Your task to perform on an android device: Open calendar and show me the first week of next month Image 0: 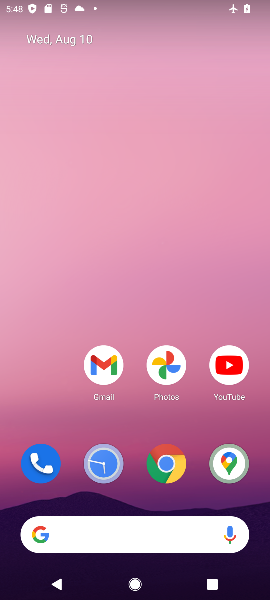
Step 0: drag from (141, 445) to (104, 150)
Your task to perform on an android device: Open calendar and show me the first week of next month Image 1: 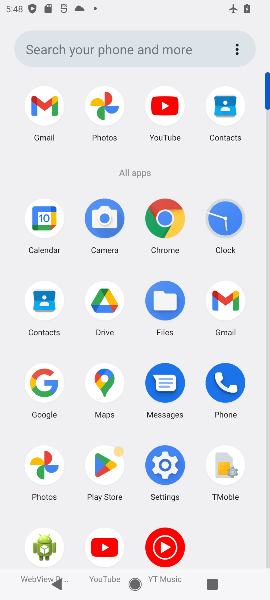
Step 1: click (46, 229)
Your task to perform on an android device: Open calendar and show me the first week of next month Image 2: 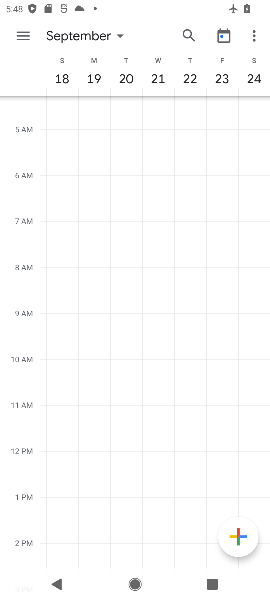
Step 2: click (119, 32)
Your task to perform on an android device: Open calendar and show me the first week of next month Image 3: 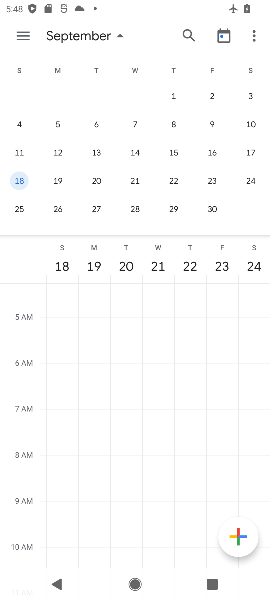
Step 3: task complete